Your task to perform on an android device: allow cookies in the chrome app Image 0: 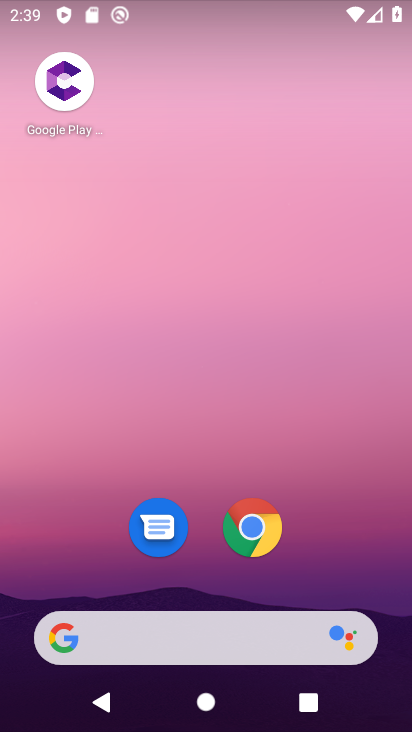
Step 0: click (233, 525)
Your task to perform on an android device: allow cookies in the chrome app Image 1: 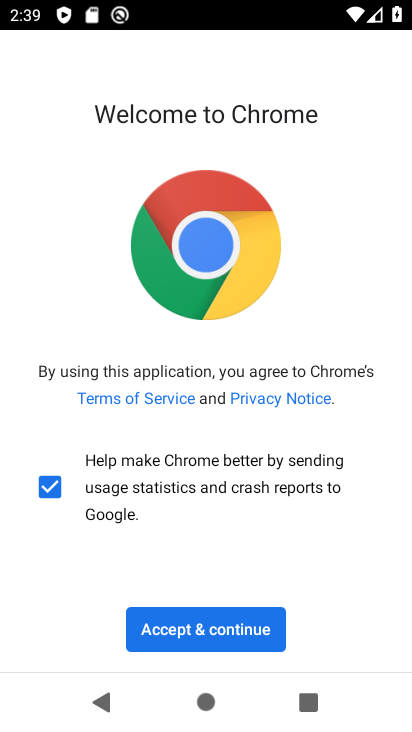
Step 1: click (190, 633)
Your task to perform on an android device: allow cookies in the chrome app Image 2: 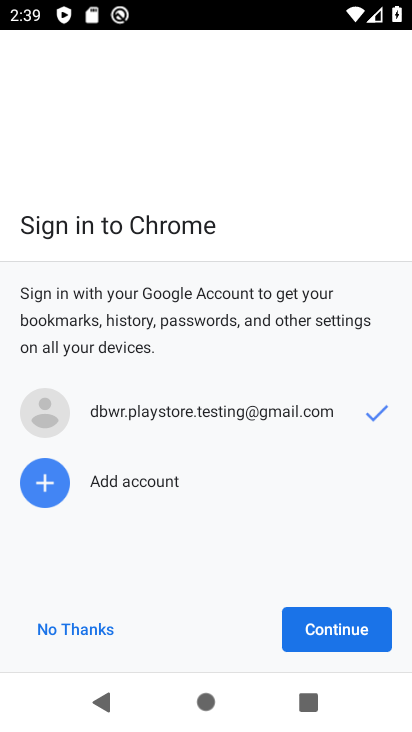
Step 2: click (311, 633)
Your task to perform on an android device: allow cookies in the chrome app Image 3: 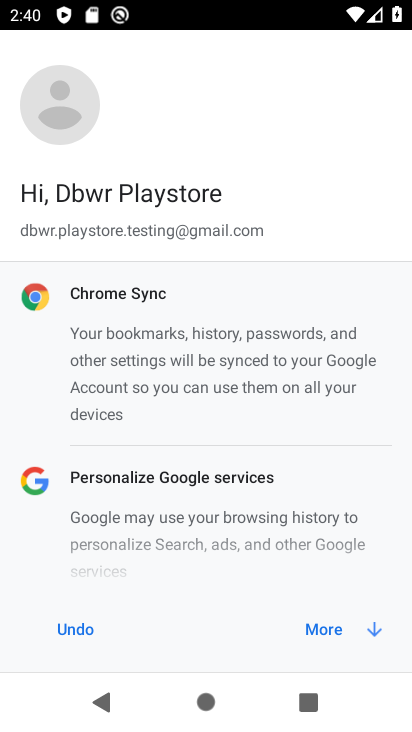
Step 3: click (354, 628)
Your task to perform on an android device: allow cookies in the chrome app Image 4: 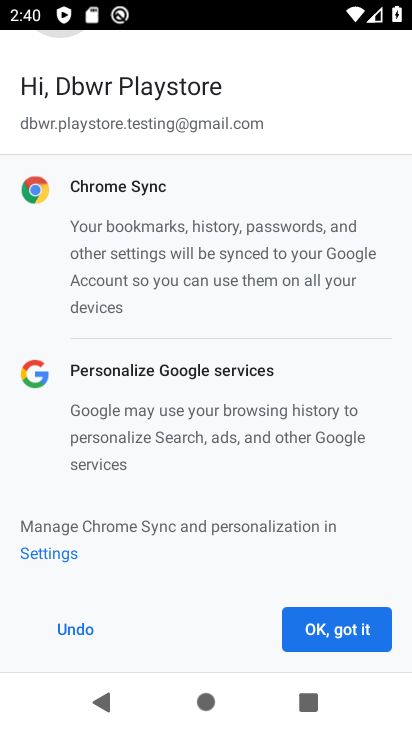
Step 4: click (354, 628)
Your task to perform on an android device: allow cookies in the chrome app Image 5: 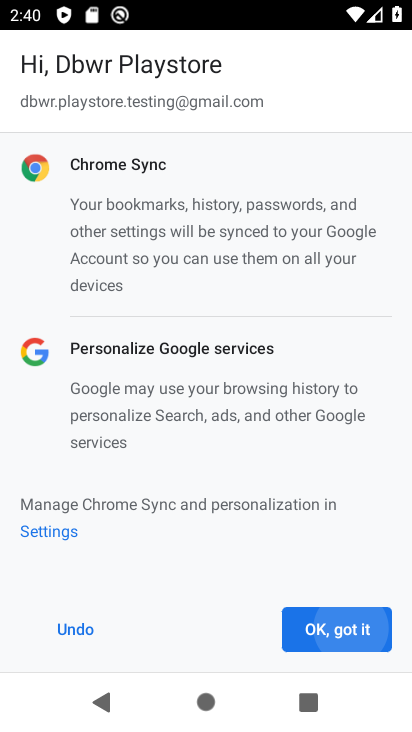
Step 5: click (354, 628)
Your task to perform on an android device: allow cookies in the chrome app Image 6: 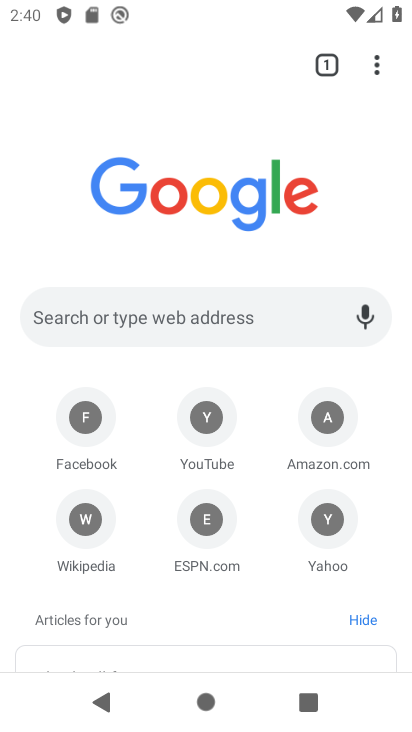
Step 6: drag from (382, 64) to (156, 561)
Your task to perform on an android device: allow cookies in the chrome app Image 7: 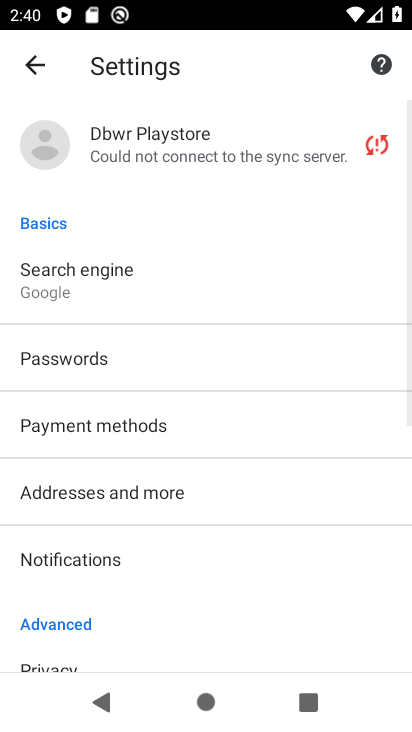
Step 7: drag from (168, 583) to (275, 78)
Your task to perform on an android device: allow cookies in the chrome app Image 8: 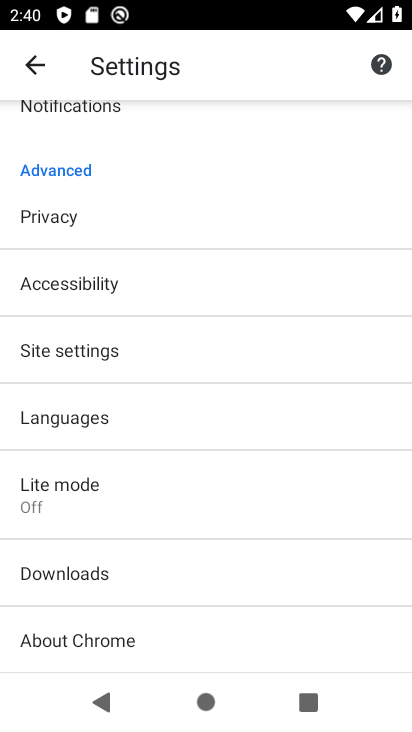
Step 8: click (75, 351)
Your task to perform on an android device: allow cookies in the chrome app Image 9: 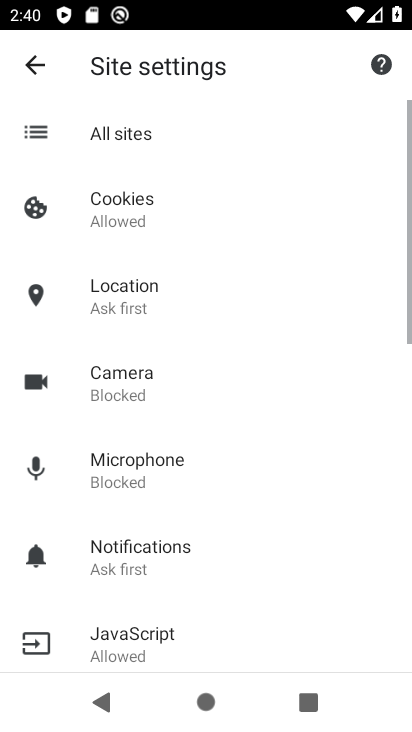
Step 9: click (155, 218)
Your task to perform on an android device: allow cookies in the chrome app Image 10: 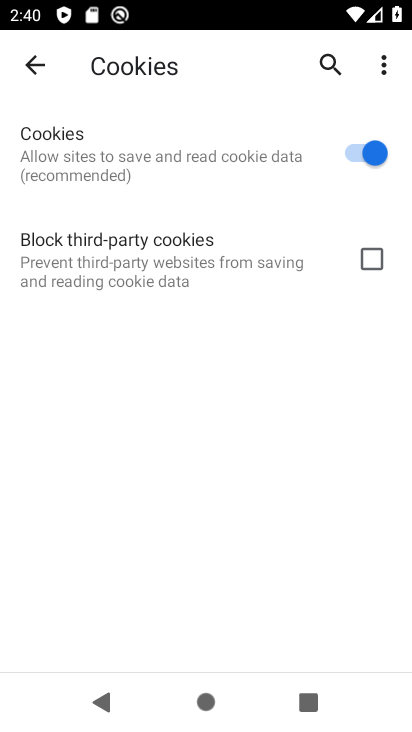
Step 10: task complete